Your task to perform on an android device: Open display settings Image 0: 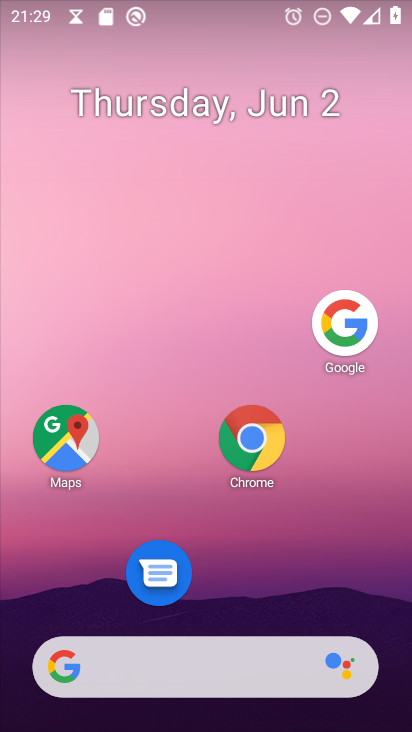
Step 0: press home button
Your task to perform on an android device: Open display settings Image 1: 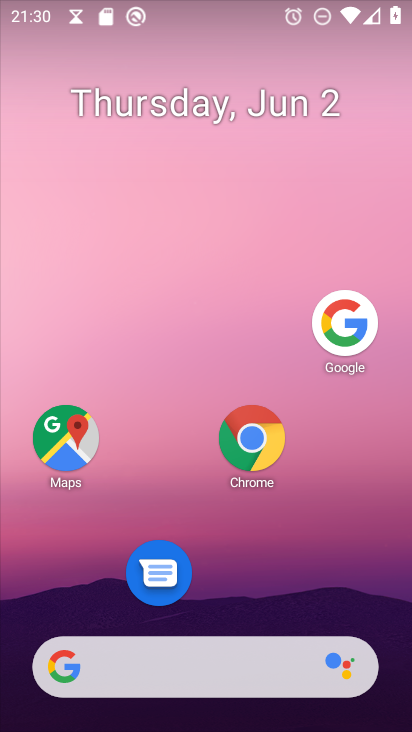
Step 1: drag from (184, 661) to (245, 191)
Your task to perform on an android device: Open display settings Image 2: 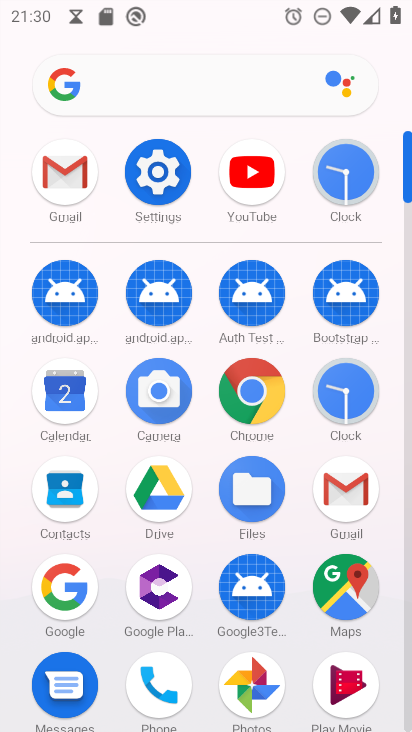
Step 2: click (160, 179)
Your task to perform on an android device: Open display settings Image 3: 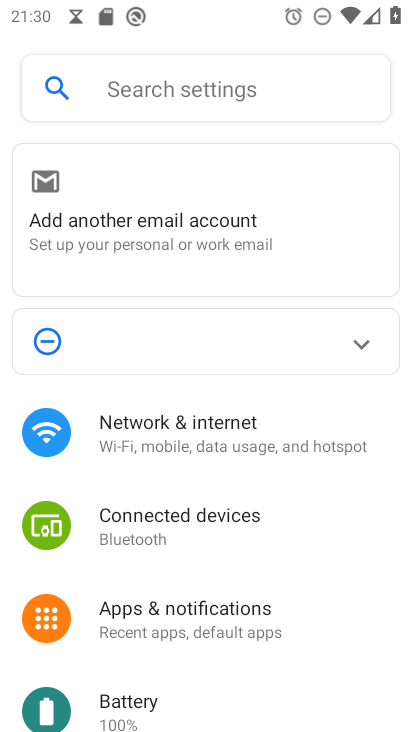
Step 3: drag from (213, 650) to (314, 172)
Your task to perform on an android device: Open display settings Image 4: 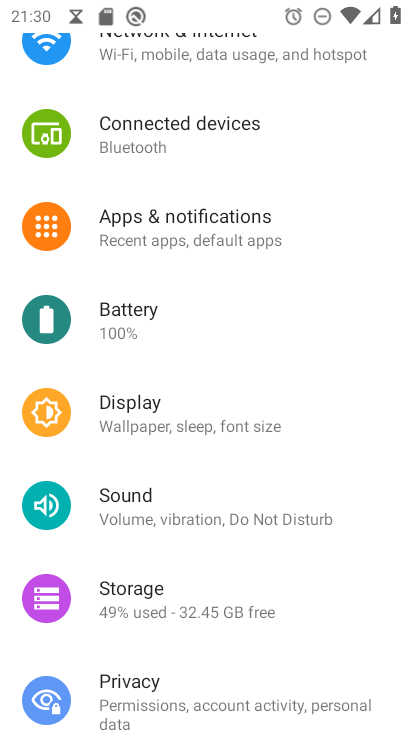
Step 4: click (137, 424)
Your task to perform on an android device: Open display settings Image 5: 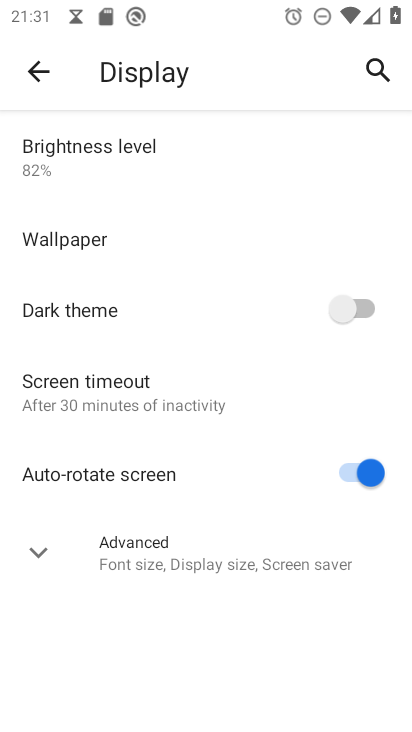
Step 5: task complete